Your task to perform on an android device: Open sound settings Image 0: 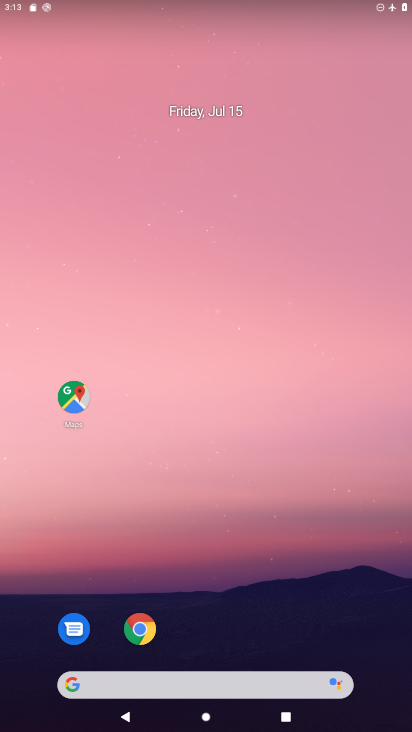
Step 0: drag from (222, 622) to (194, 16)
Your task to perform on an android device: Open sound settings Image 1: 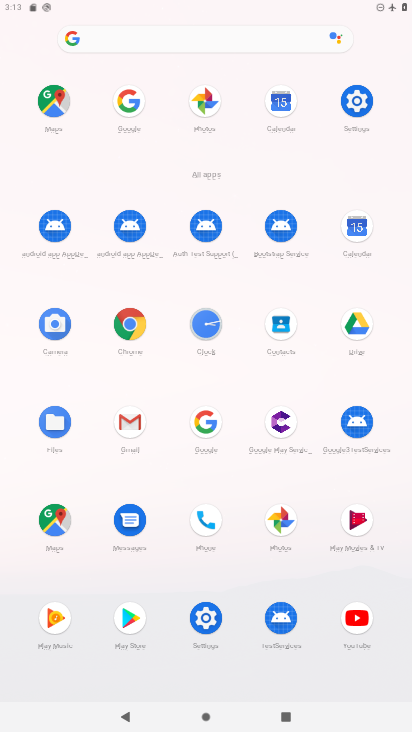
Step 1: click (353, 100)
Your task to perform on an android device: Open sound settings Image 2: 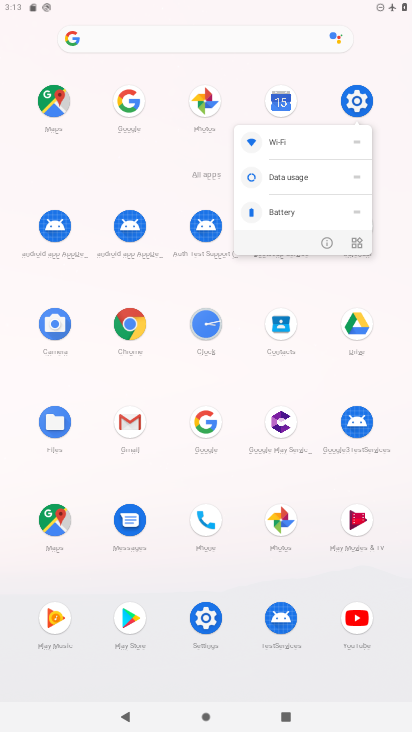
Step 2: click (353, 99)
Your task to perform on an android device: Open sound settings Image 3: 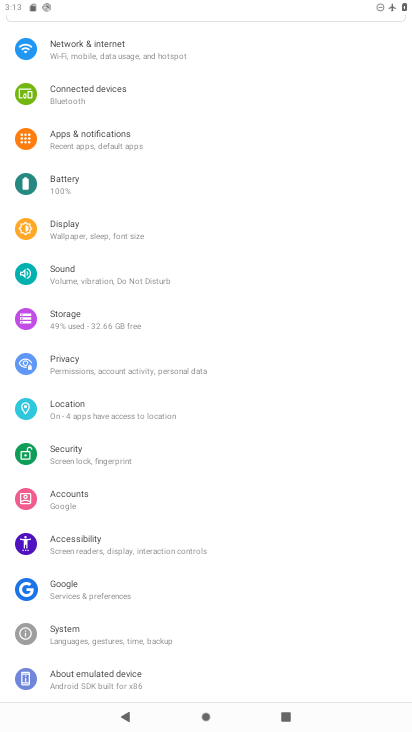
Step 3: click (115, 274)
Your task to perform on an android device: Open sound settings Image 4: 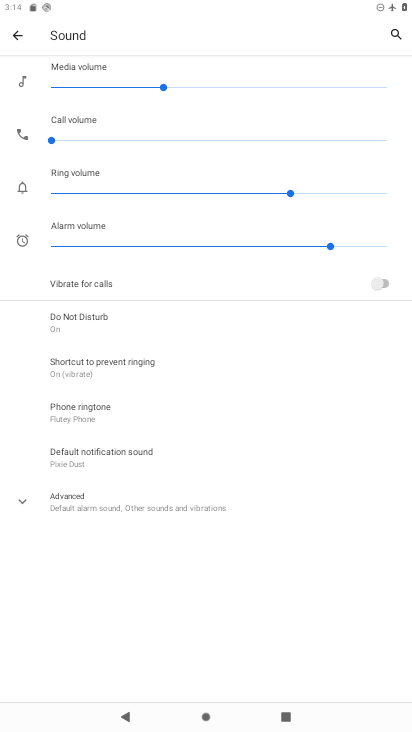
Step 4: task complete